Your task to perform on an android device: Go to eBay Image 0: 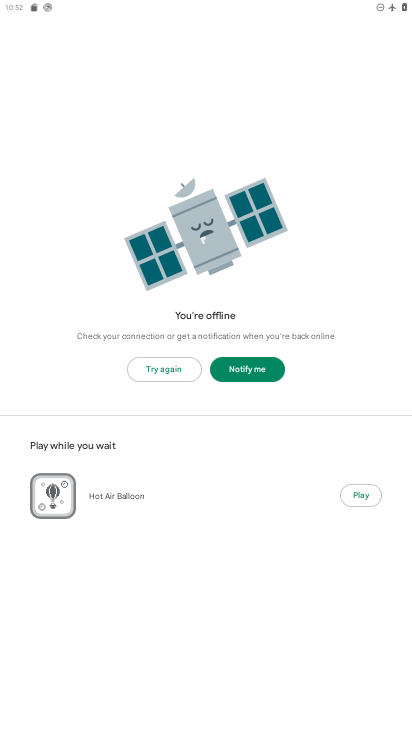
Step 0: press home button
Your task to perform on an android device: Go to eBay Image 1: 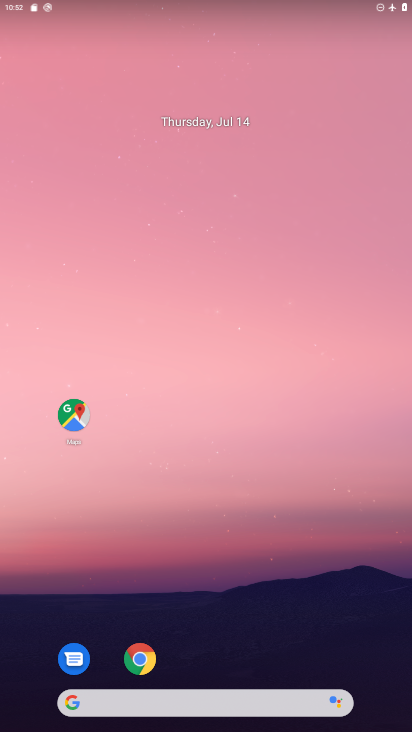
Step 1: drag from (260, 645) to (216, 171)
Your task to perform on an android device: Go to eBay Image 2: 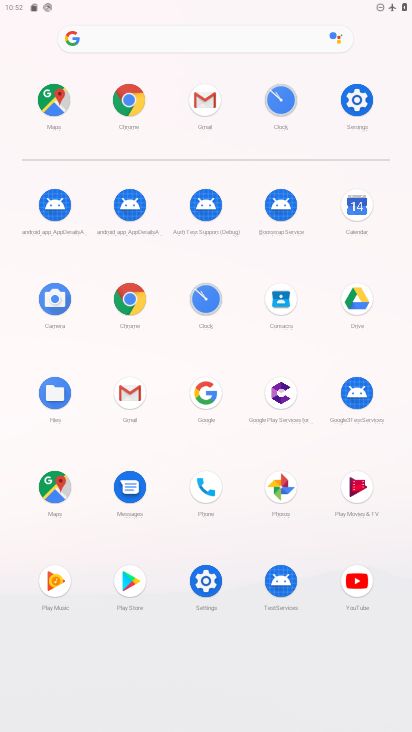
Step 2: click (131, 100)
Your task to perform on an android device: Go to eBay Image 3: 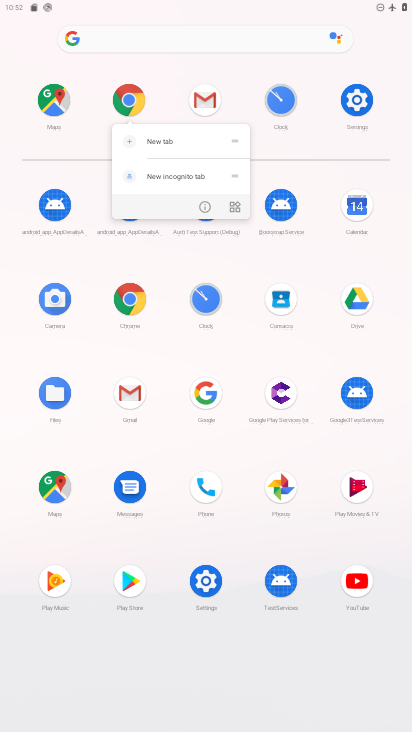
Step 3: click (131, 100)
Your task to perform on an android device: Go to eBay Image 4: 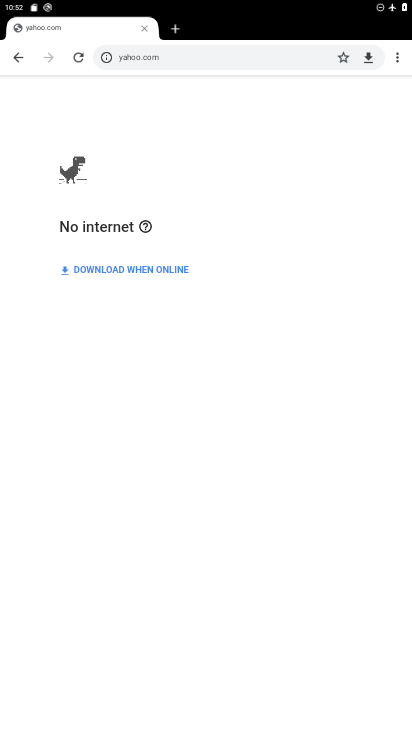
Step 4: click (188, 61)
Your task to perform on an android device: Go to eBay Image 5: 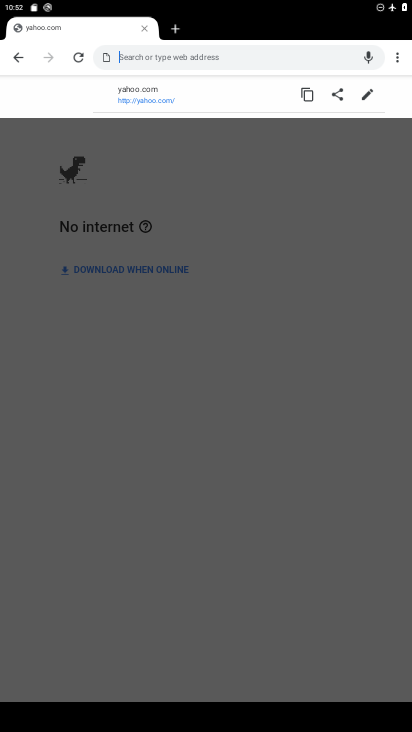
Step 5: type "ebay"
Your task to perform on an android device: Go to eBay Image 6: 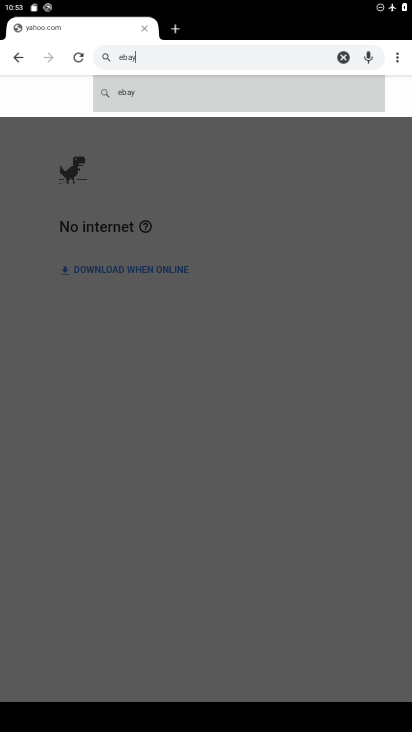
Step 6: click (116, 92)
Your task to perform on an android device: Go to eBay Image 7: 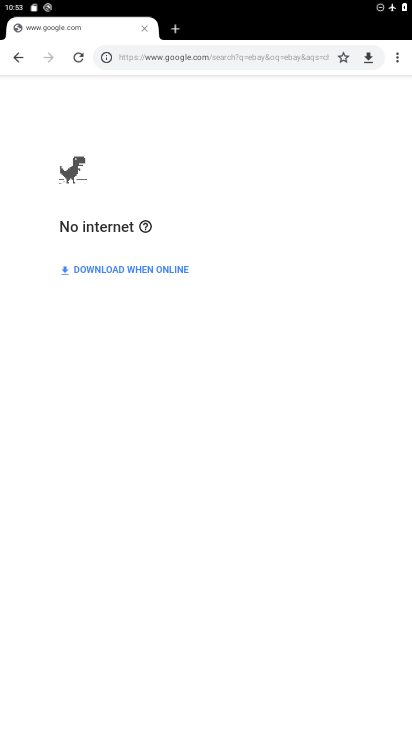
Step 7: task complete